Your task to perform on an android device: Search for Italian restaurants on Maps Image 0: 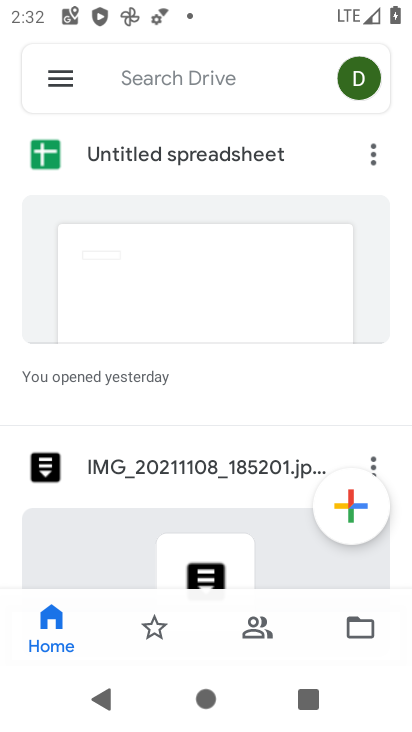
Step 0: press home button
Your task to perform on an android device: Search for Italian restaurants on Maps Image 1: 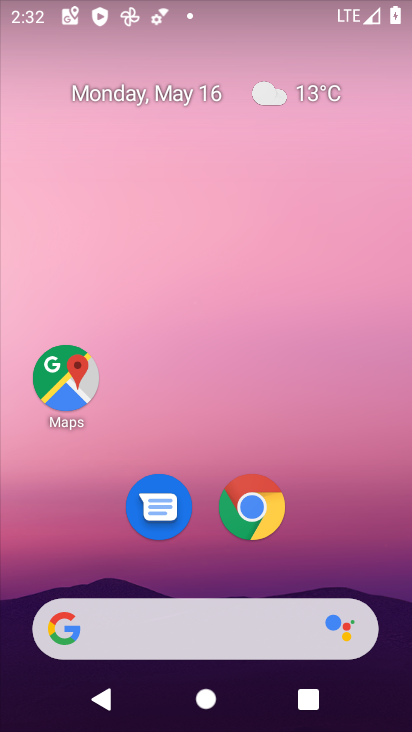
Step 1: click (41, 357)
Your task to perform on an android device: Search for Italian restaurants on Maps Image 2: 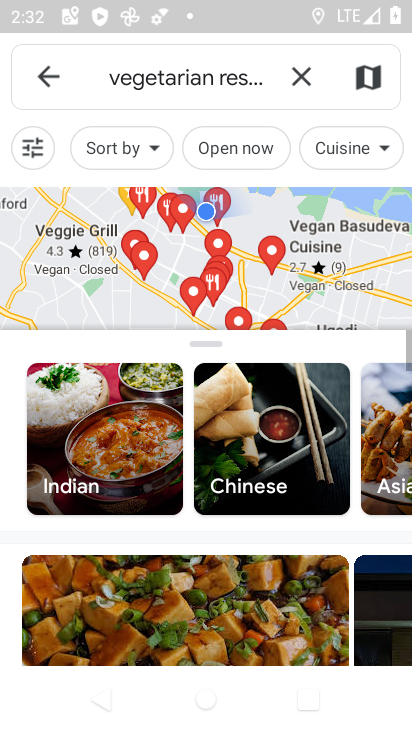
Step 2: click (289, 77)
Your task to perform on an android device: Search for Italian restaurants on Maps Image 3: 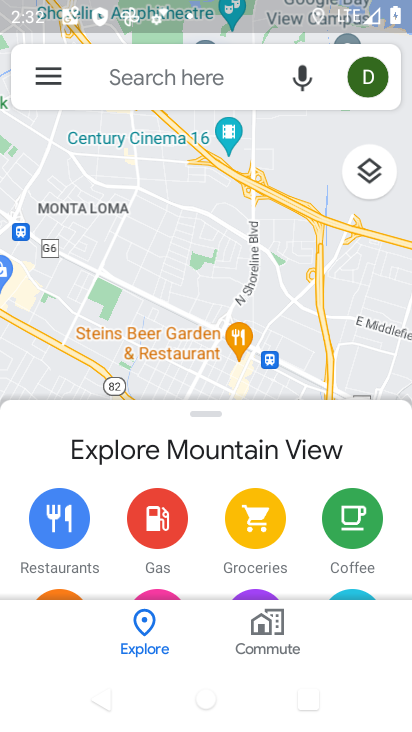
Step 3: click (170, 74)
Your task to perform on an android device: Search for Italian restaurants on Maps Image 4: 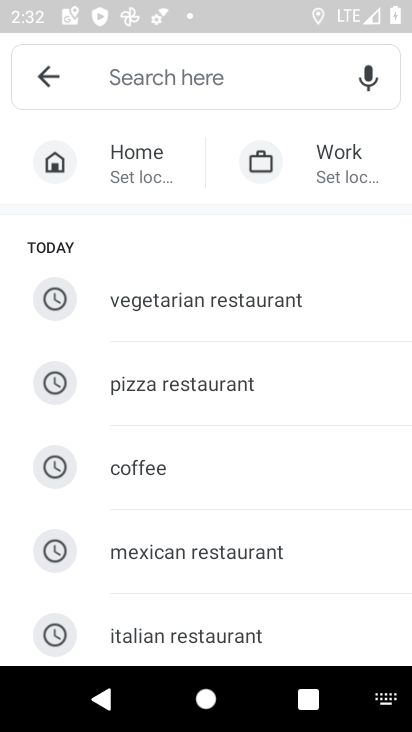
Step 4: drag from (203, 556) to (195, 341)
Your task to perform on an android device: Search for Italian restaurants on Maps Image 5: 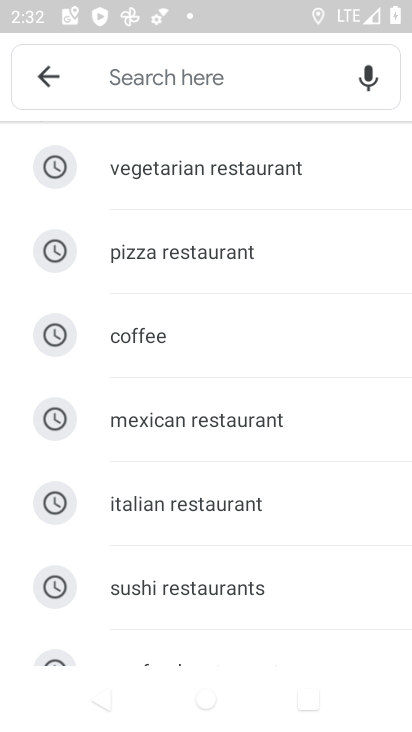
Step 5: click (214, 488)
Your task to perform on an android device: Search for Italian restaurants on Maps Image 6: 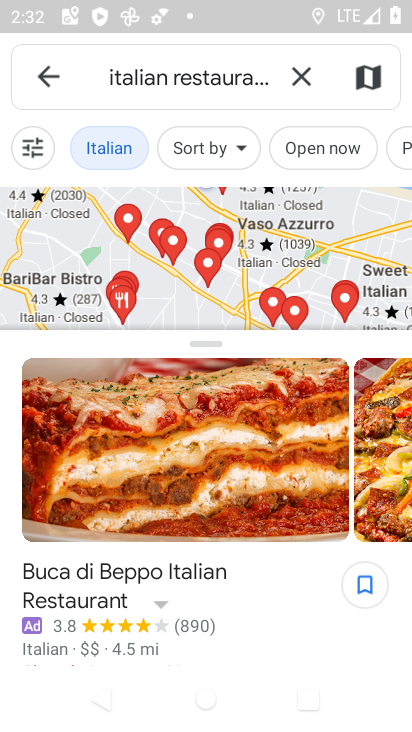
Step 6: task complete